Your task to perform on an android device: Search for "bose soundlink" on newegg, select the first entry, add it to the cart, then select checkout. Image 0: 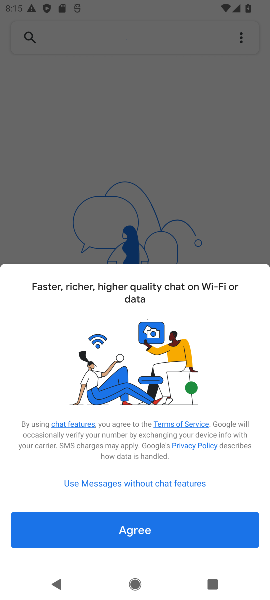
Step 0: press home button
Your task to perform on an android device: Search for "bose soundlink" on newegg, select the first entry, add it to the cart, then select checkout. Image 1: 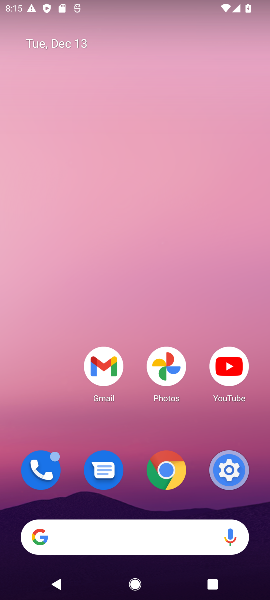
Step 1: click (64, 534)
Your task to perform on an android device: Search for "bose soundlink" on newegg, select the first entry, add it to the cart, then select checkout. Image 2: 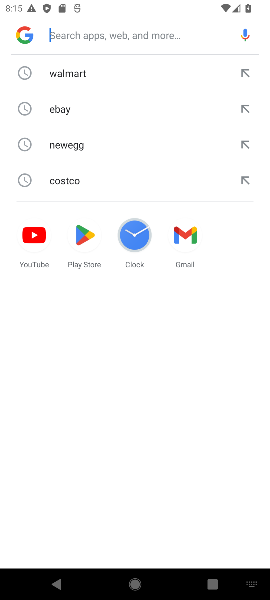
Step 2: type "newegg"
Your task to perform on an android device: Search for "bose soundlink" on newegg, select the first entry, add it to the cart, then select checkout. Image 3: 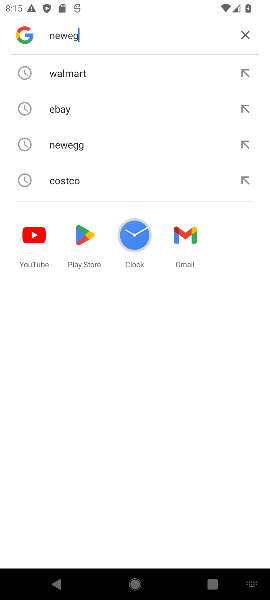
Step 3: press enter
Your task to perform on an android device: Search for "bose soundlink" on newegg, select the first entry, add it to the cart, then select checkout. Image 4: 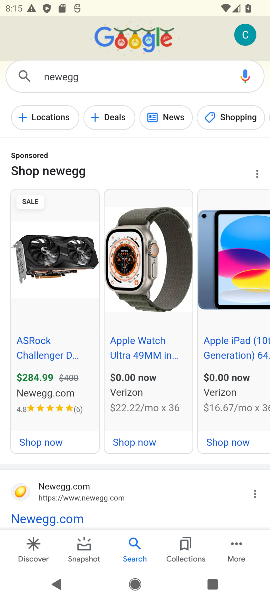
Step 4: drag from (154, 504) to (164, 272)
Your task to perform on an android device: Search for "bose soundlink" on newegg, select the first entry, add it to the cart, then select checkout. Image 5: 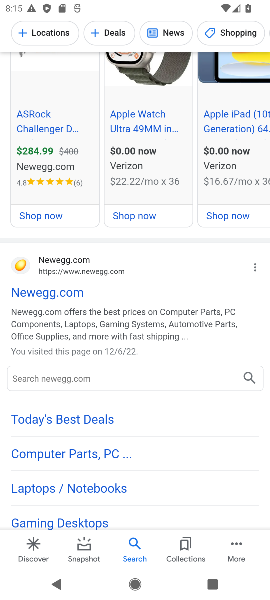
Step 5: click (34, 295)
Your task to perform on an android device: Search for "bose soundlink" on newegg, select the first entry, add it to the cart, then select checkout. Image 6: 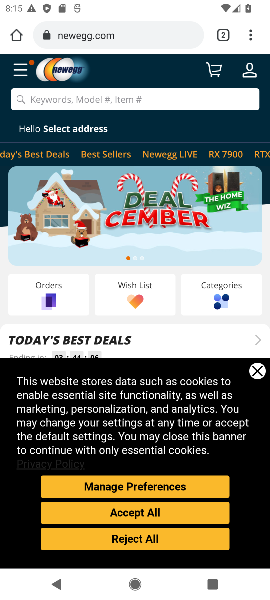
Step 6: click (257, 372)
Your task to perform on an android device: Search for "bose soundlink" on newegg, select the first entry, add it to the cart, then select checkout. Image 7: 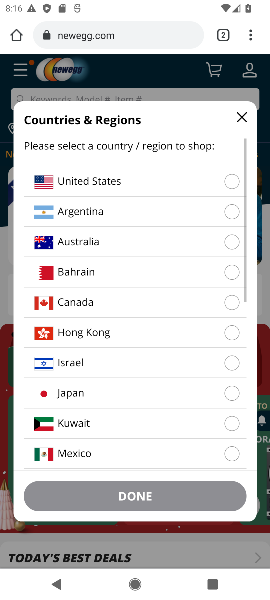
Step 7: click (239, 116)
Your task to perform on an android device: Search for "bose soundlink" on newegg, select the first entry, add it to the cart, then select checkout. Image 8: 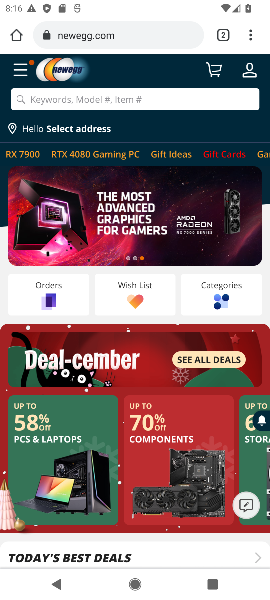
Step 8: click (97, 100)
Your task to perform on an android device: Search for "bose soundlink" on newegg, select the first entry, add it to the cart, then select checkout. Image 9: 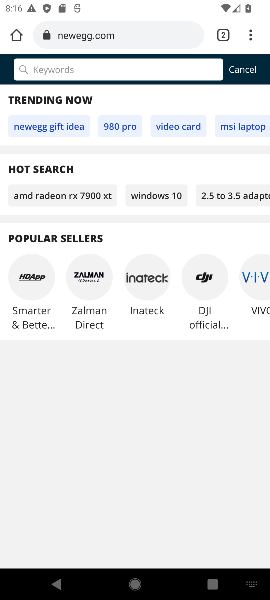
Step 9: type "bose soundlink"
Your task to perform on an android device: Search for "bose soundlink" on newegg, select the first entry, add it to the cart, then select checkout. Image 10: 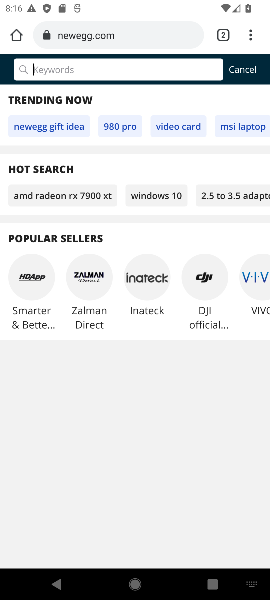
Step 10: press enter
Your task to perform on an android device: Search for "bose soundlink" on newegg, select the first entry, add it to the cart, then select checkout. Image 11: 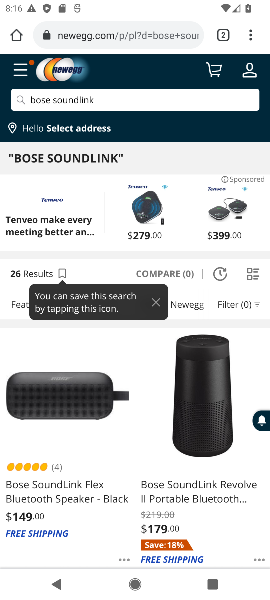
Step 11: click (171, 492)
Your task to perform on an android device: Search for "bose soundlink" on newegg, select the first entry, add it to the cart, then select checkout. Image 12: 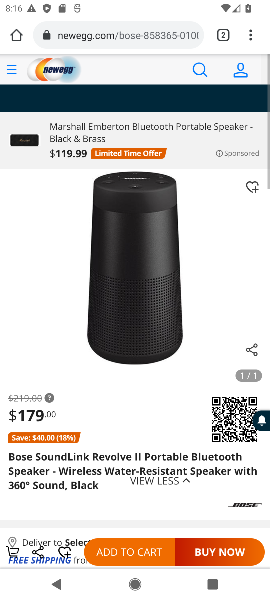
Step 12: drag from (164, 504) to (183, 291)
Your task to perform on an android device: Search for "bose soundlink" on newegg, select the first entry, add it to the cart, then select checkout. Image 13: 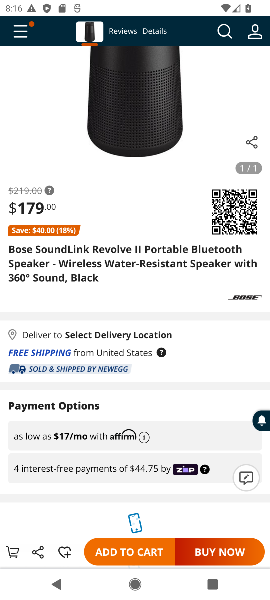
Step 13: click (108, 550)
Your task to perform on an android device: Search for "bose soundlink" on newegg, select the first entry, add it to the cart, then select checkout. Image 14: 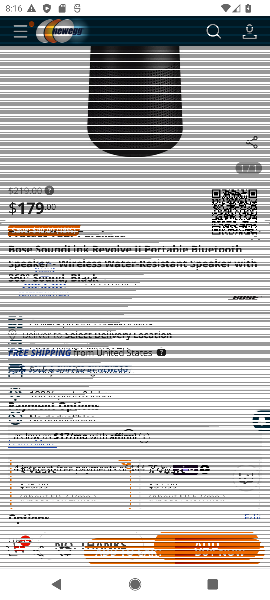
Step 14: click (94, 548)
Your task to perform on an android device: Search for "bose soundlink" on newegg, select the first entry, add it to the cart, then select checkout. Image 15: 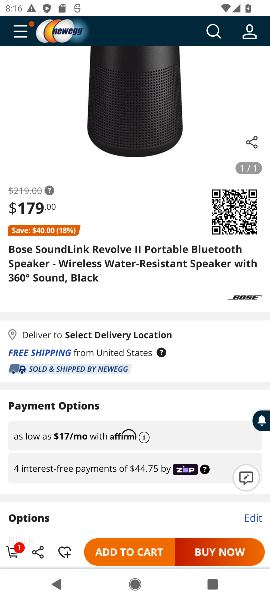
Step 15: click (13, 551)
Your task to perform on an android device: Search for "bose soundlink" on newegg, select the first entry, add it to the cart, then select checkout. Image 16: 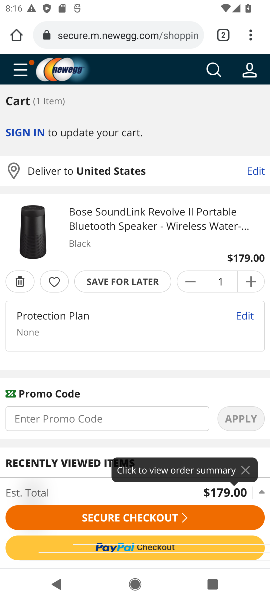
Step 16: click (127, 519)
Your task to perform on an android device: Search for "bose soundlink" on newegg, select the first entry, add it to the cart, then select checkout. Image 17: 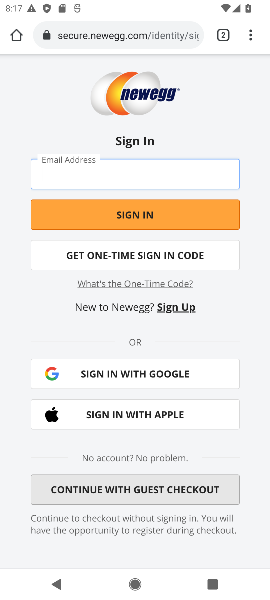
Step 17: task complete